Your task to perform on an android device: When is my next appointment? Image 0: 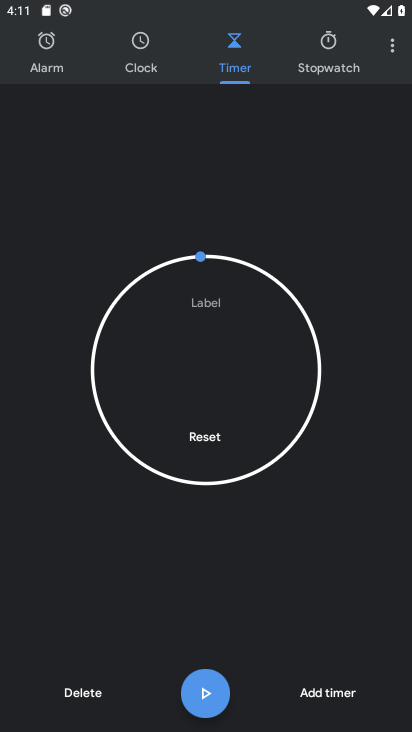
Step 0: press back button
Your task to perform on an android device: When is my next appointment? Image 1: 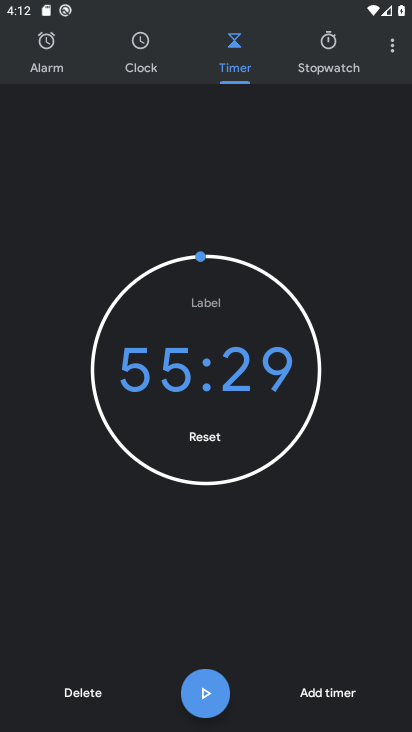
Step 1: press back button
Your task to perform on an android device: When is my next appointment? Image 2: 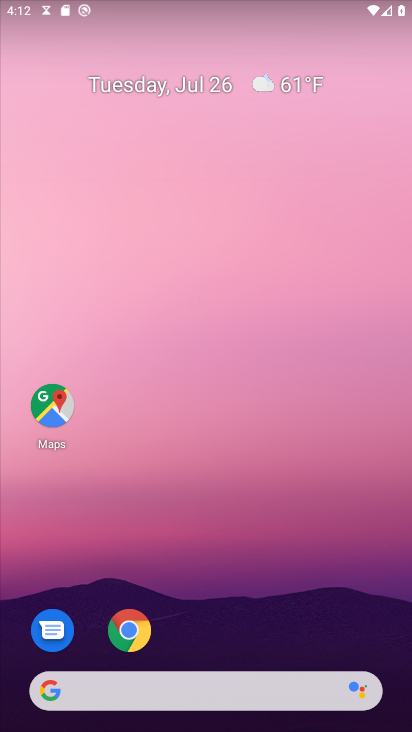
Step 2: drag from (238, 579) to (113, 14)
Your task to perform on an android device: When is my next appointment? Image 3: 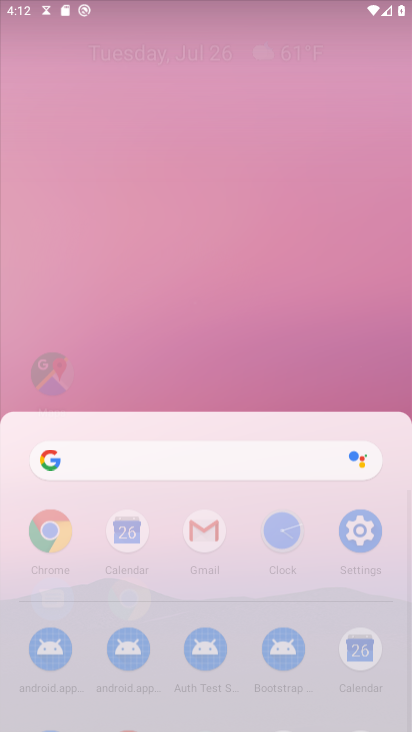
Step 3: drag from (141, 481) to (144, 79)
Your task to perform on an android device: When is my next appointment? Image 4: 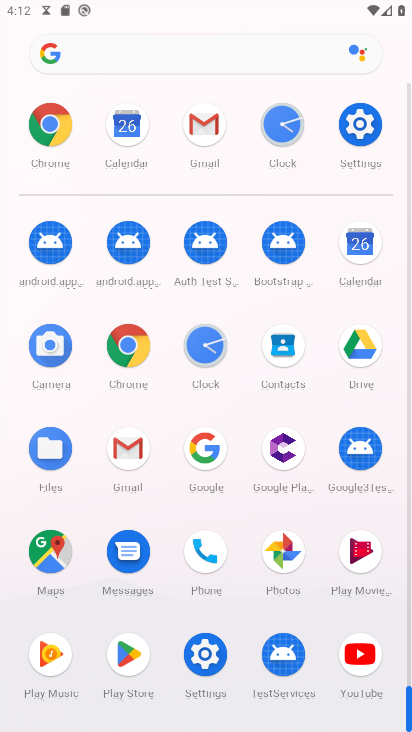
Step 4: drag from (176, 355) to (136, 0)
Your task to perform on an android device: When is my next appointment? Image 5: 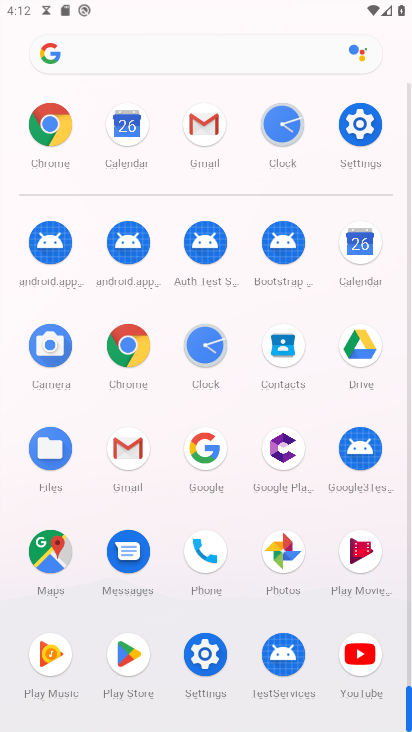
Step 5: click (359, 252)
Your task to perform on an android device: When is my next appointment? Image 6: 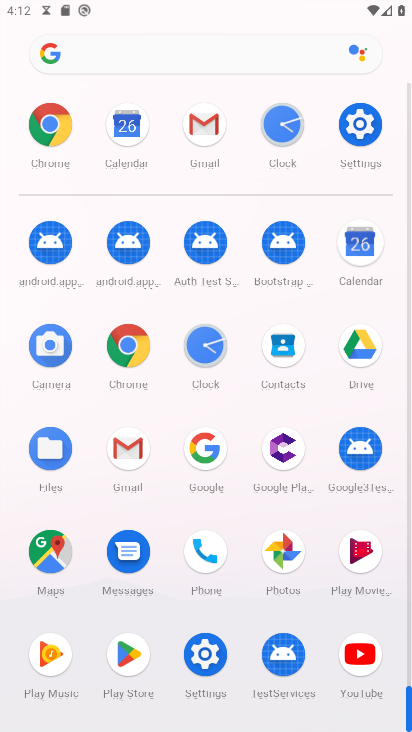
Step 6: click (358, 251)
Your task to perform on an android device: When is my next appointment? Image 7: 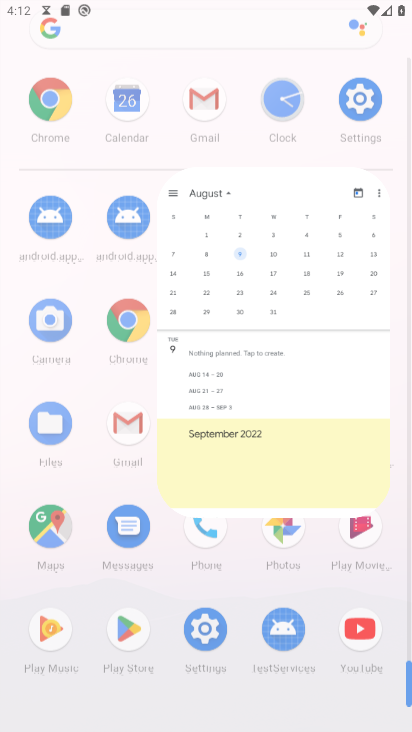
Step 7: click (356, 247)
Your task to perform on an android device: When is my next appointment? Image 8: 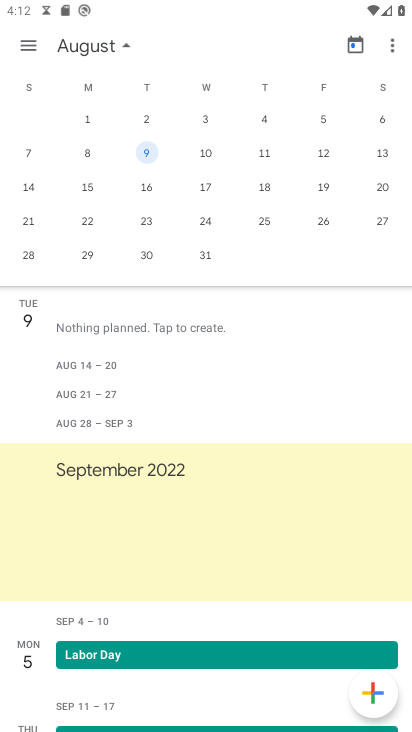
Step 8: drag from (111, 143) to (373, 145)
Your task to perform on an android device: When is my next appointment? Image 9: 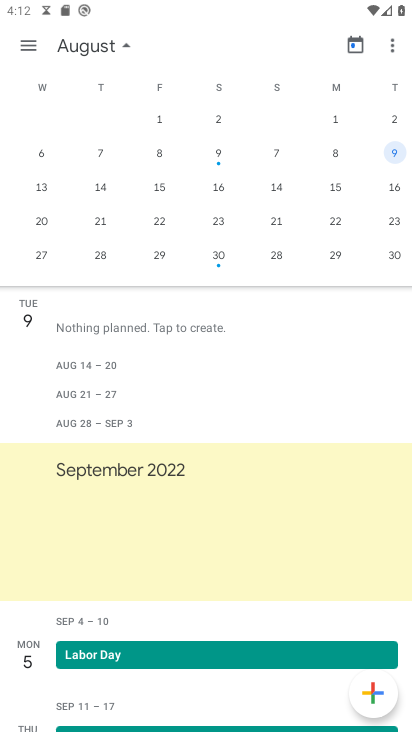
Step 9: drag from (122, 171) to (408, 186)
Your task to perform on an android device: When is my next appointment? Image 10: 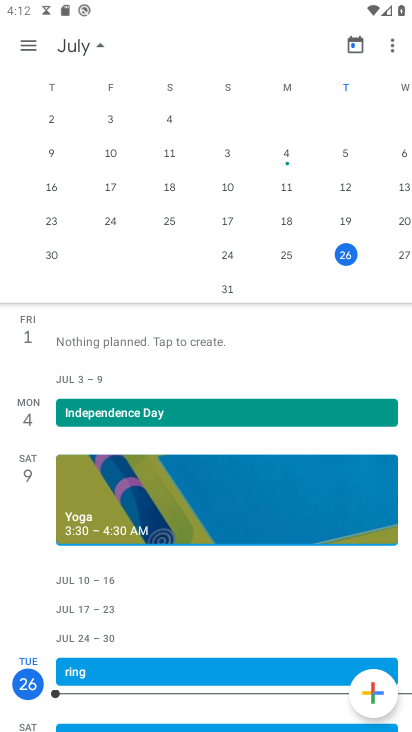
Step 10: drag from (175, 183) to (404, 177)
Your task to perform on an android device: When is my next appointment? Image 11: 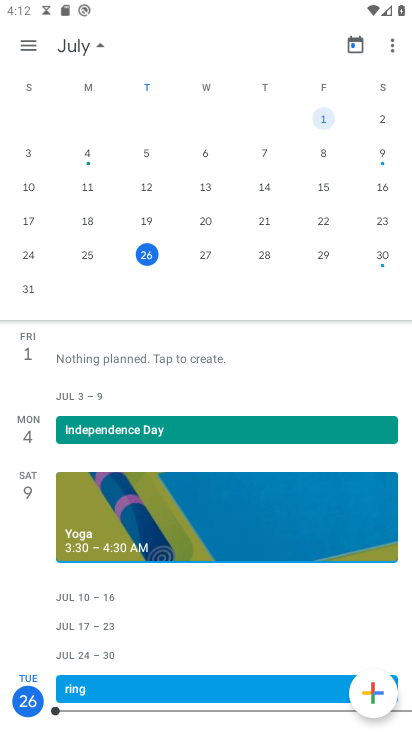
Step 11: drag from (221, 191) to (42, 217)
Your task to perform on an android device: When is my next appointment? Image 12: 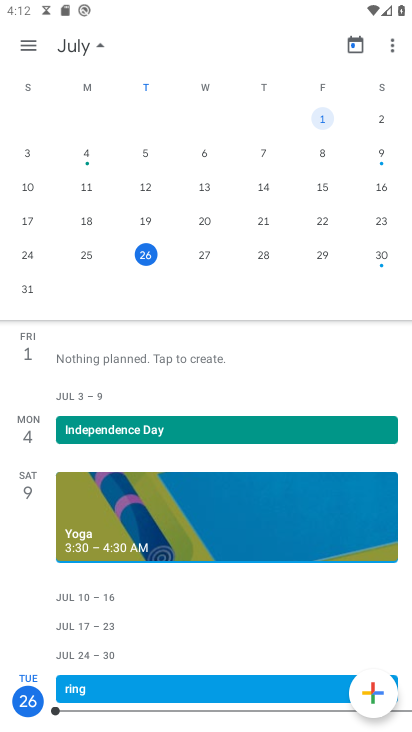
Step 12: drag from (309, 218) to (217, 218)
Your task to perform on an android device: When is my next appointment? Image 13: 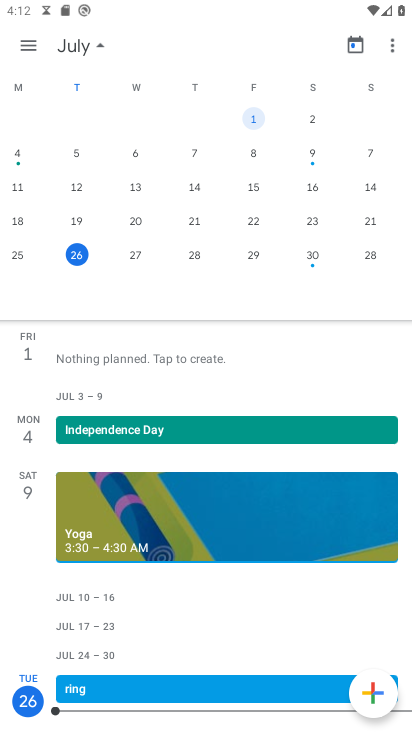
Step 13: drag from (357, 196) to (176, 187)
Your task to perform on an android device: When is my next appointment? Image 14: 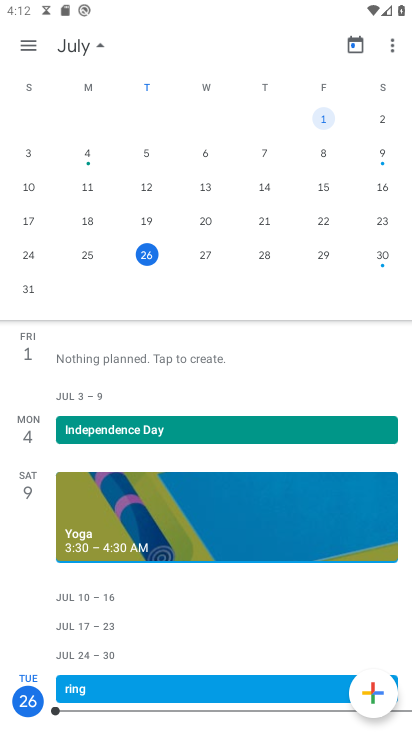
Step 14: click (320, 257)
Your task to perform on an android device: When is my next appointment? Image 15: 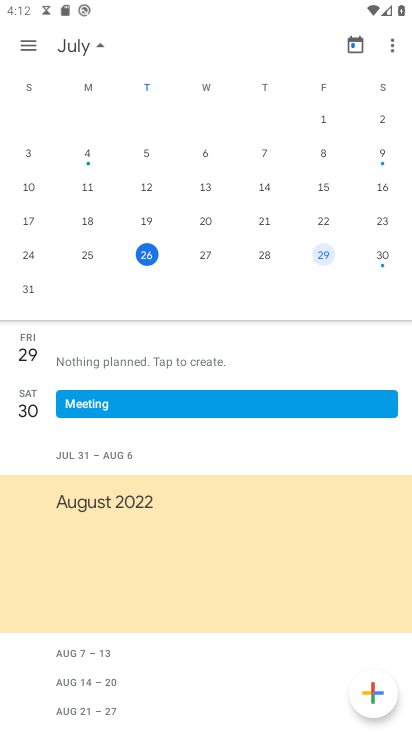
Step 15: click (318, 256)
Your task to perform on an android device: When is my next appointment? Image 16: 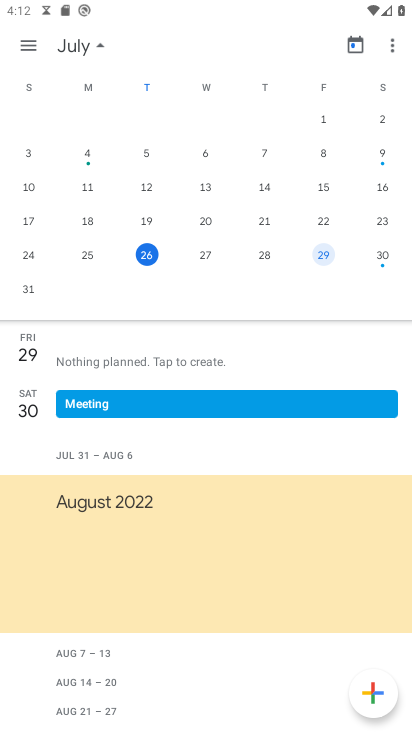
Step 16: click (319, 254)
Your task to perform on an android device: When is my next appointment? Image 17: 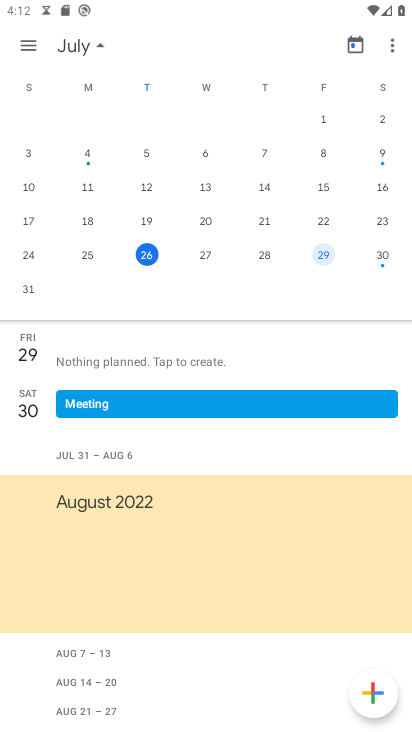
Step 17: click (319, 254)
Your task to perform on an android device: When is my next appointment? Image 18: 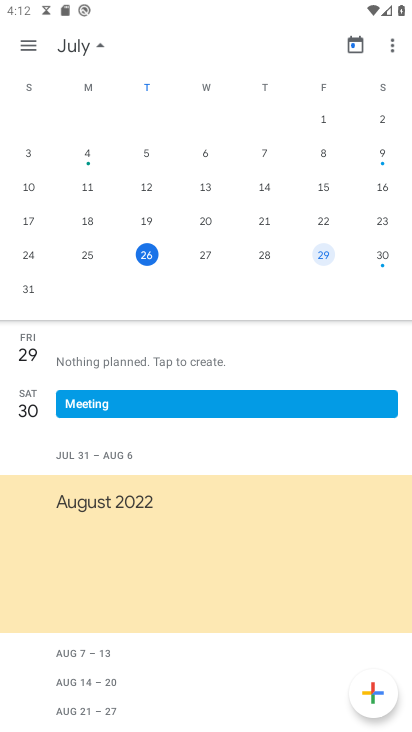
Step 18: task complete